Your task to perform on an android device: turn on data saver in the chrome app Image 0: 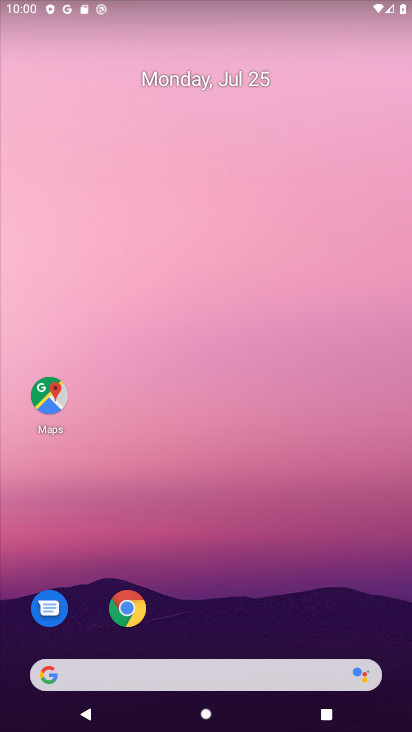
Step 0: drag from (259, 647) to (248, 140)
Your task to perform on an android device: turn on data saver in the chrome app Image 1: 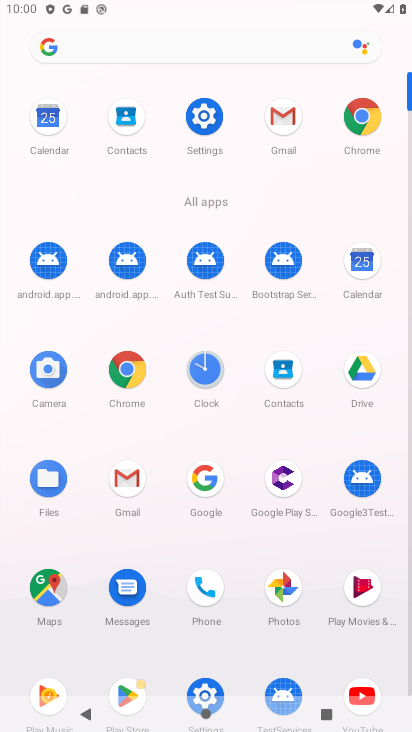
Step 1: click (359, 126)
Your task to perform on an android device: turn on data saver in the chrome app Image 2: 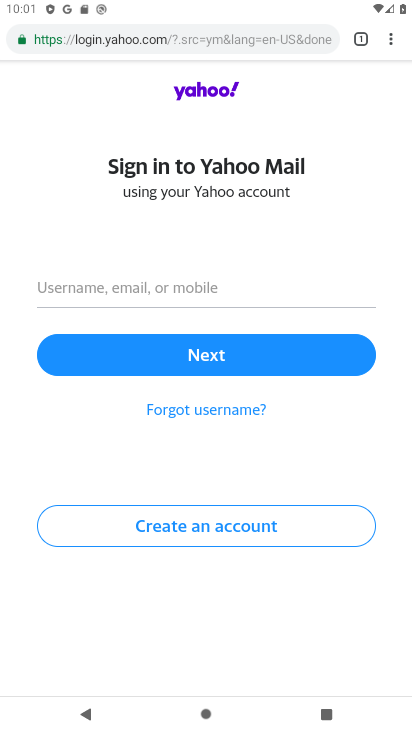
Step 2: click (389, 49)
Your task to perform on an android device: turn on data saver in the chrome app Image 3: 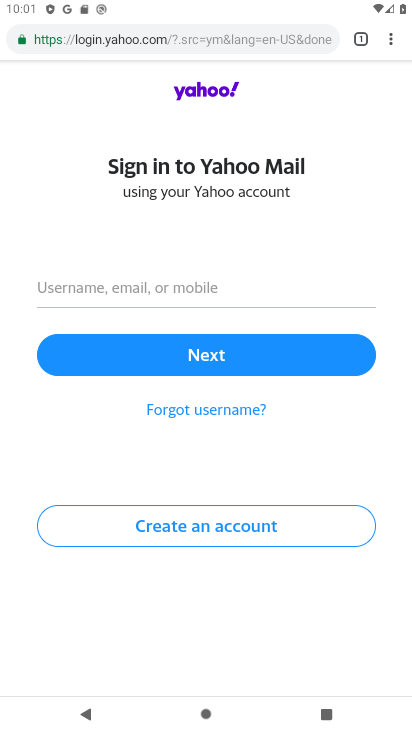
Step 3: click (387, 47)
Your task to perform on an android device: turn on data saver in the chrome app Image 4: 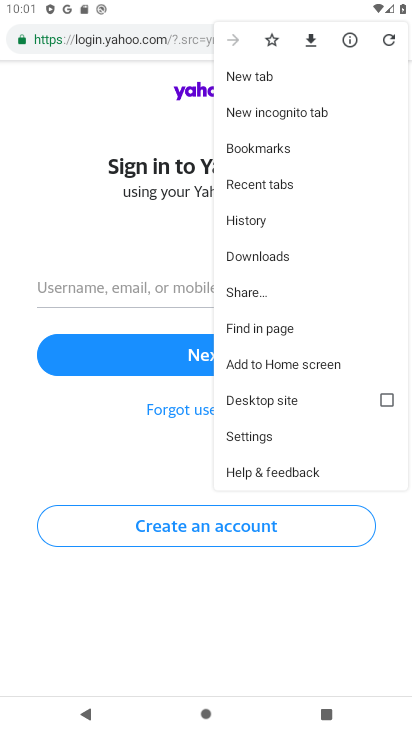
Step 4: click (250, 439)
Your task to perform on an android device: turn on data saver in the chrome app Image 5: 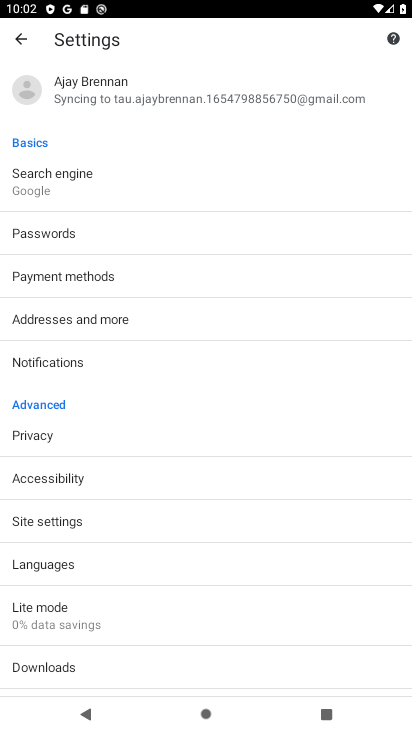
Step 5: click (57, 608)
Your task to perform on an android device: turn on data saver in the chrome app Image 6: 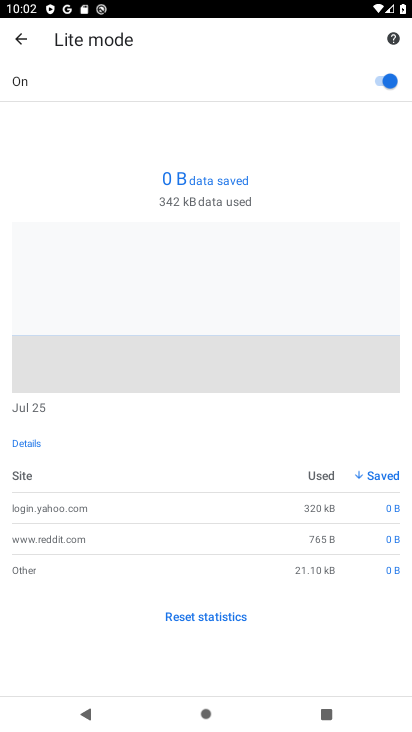
Step 6: task complete